Your task to perform on an android device: turn on translation in the chrome app Image 0: 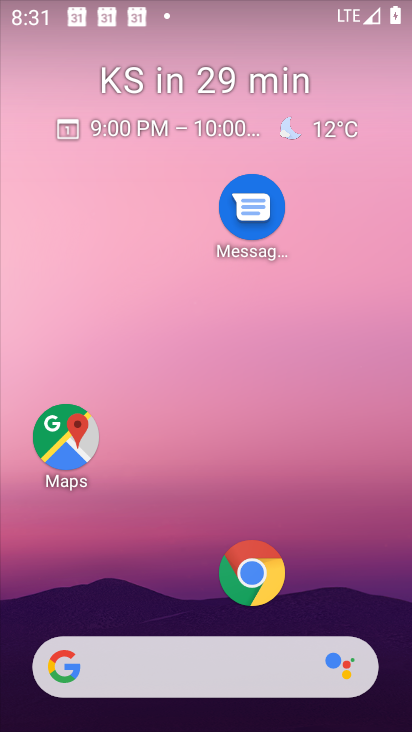
Step 0: click (249, 580)
Your task to perform on an android device: turn on translation in the chrome app Image 1: 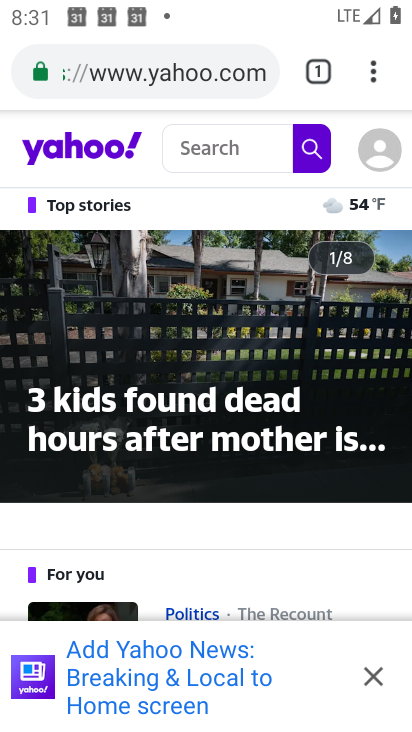
Step 1: click (359, 80)
Your task to perform on an android device: turn on translation in the chrome app Image 2: 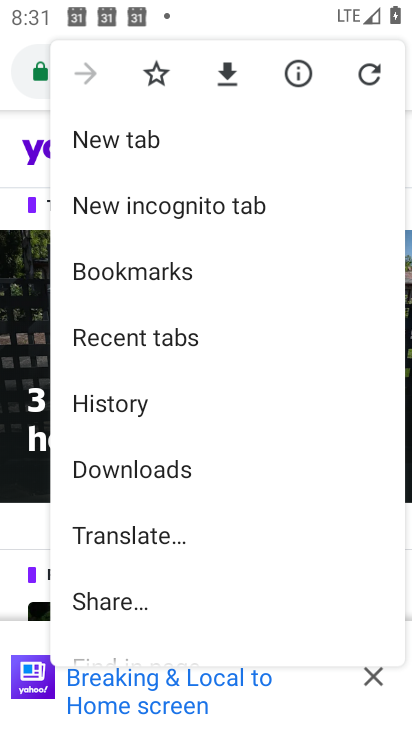
Step 2: drag from (239, 537) to (241, 178)
Your task to perform on an android device: turn on translation in the chrome app Image 3: 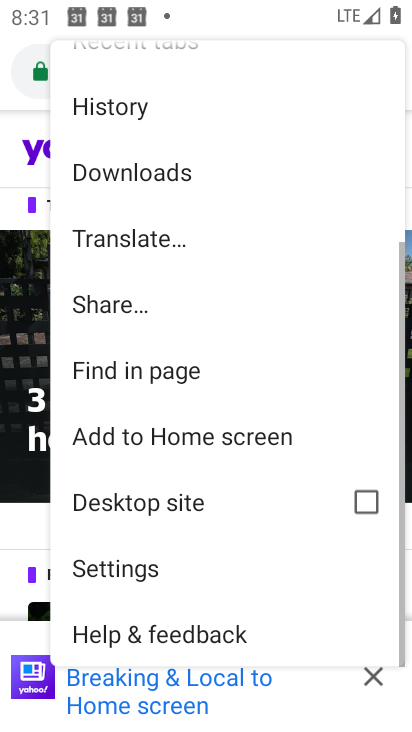
Step 3: click (136, 561)
Your task to perform on an android device: turn on translation in the chrome app Image 4: 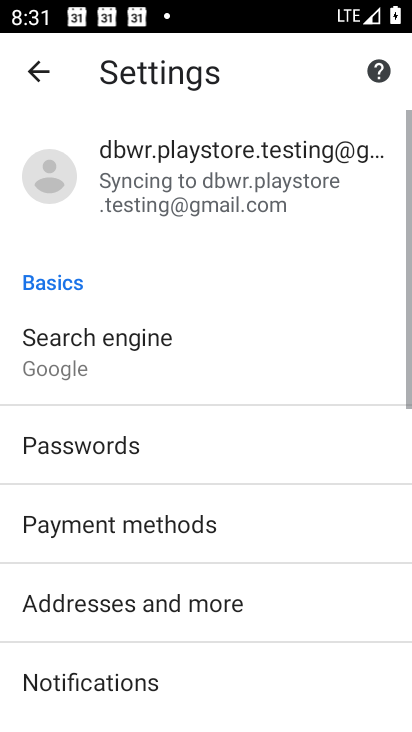
Step 4: drag from (220, 607) to (194, 65)
Your task to perform on an android device: turn on translation in the chrome app Image 5: 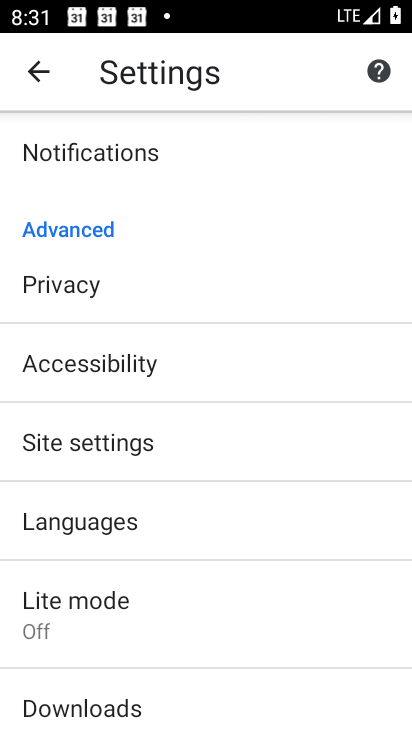
Step 5: drag from (168, 639) to (180, 273)
Your task to perform on an android device: turn on translation in the chrome app Image 6: 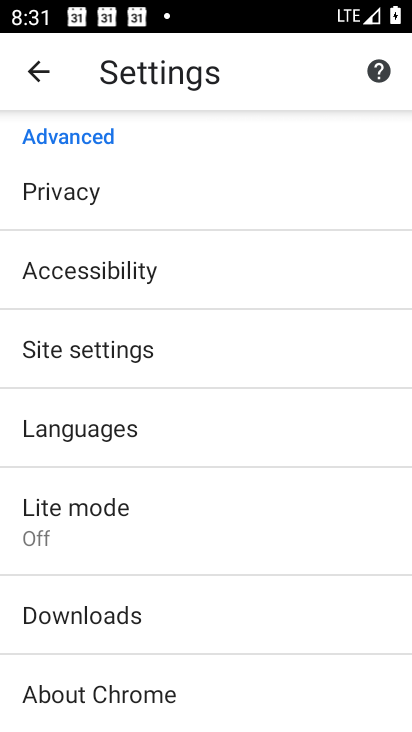
Step 6: click (110, 428)
Your task to perform on an android device: turn on translation in the chrome app Image 7: 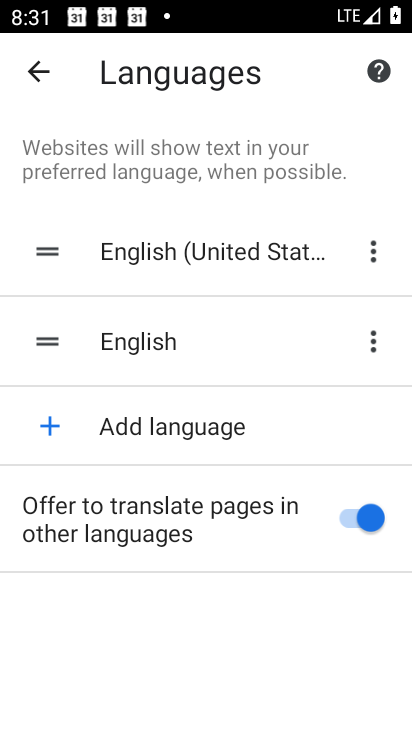
Step 7: click (344, 527)
Your task to perform on an android device: turn on translation in the chrome app Image 8: 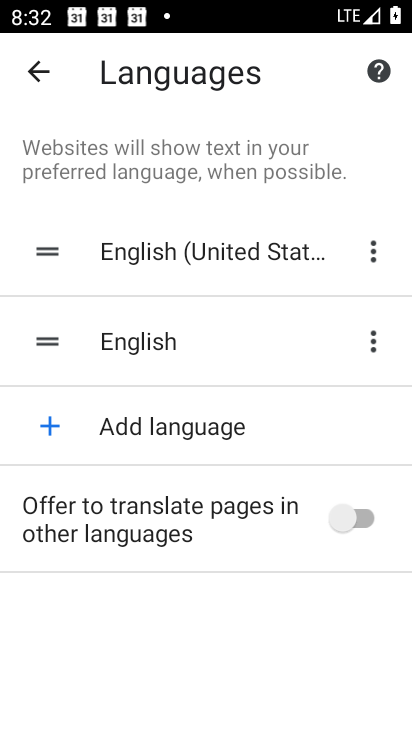
Step 8: task complete